Your task to perform on an android device: set default search engine in the chrome app Image 0: 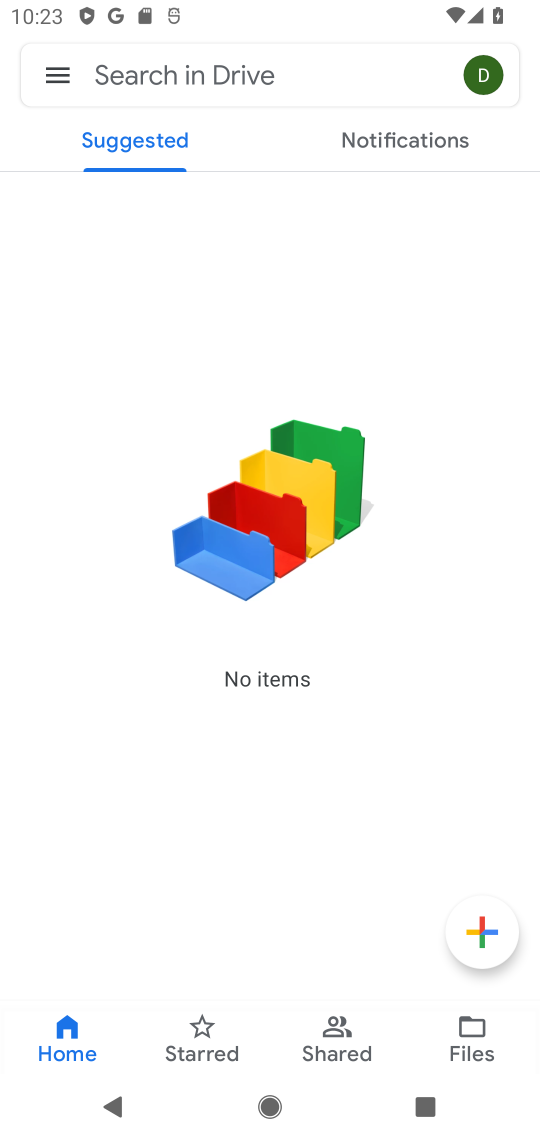
Step 0: press home button
Your task to perform on an android device: set default search engine in the chrome app Image 1: 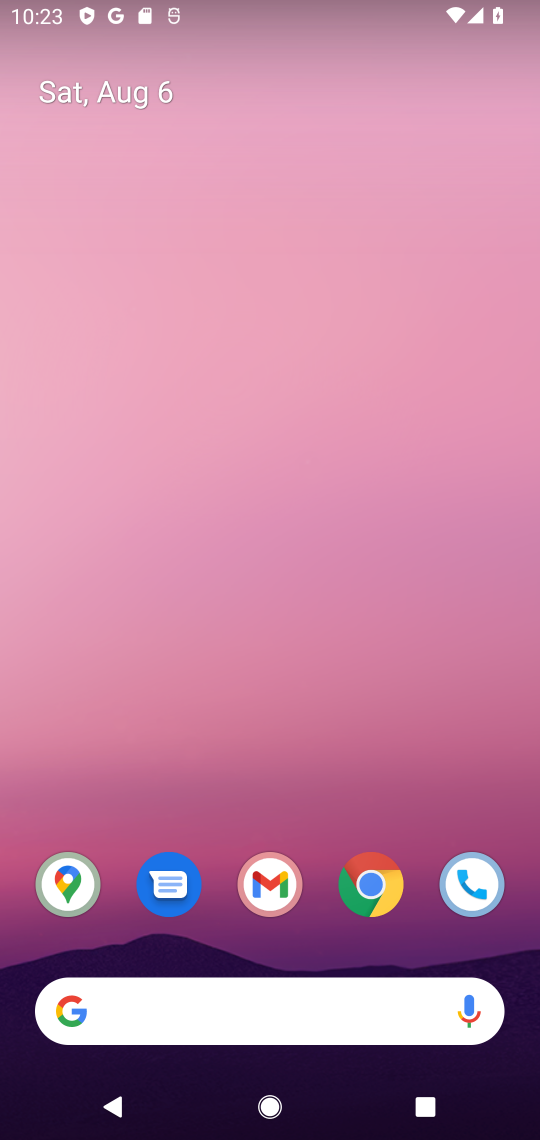
Step 1: click (369, 886)
Your task to perform on an android device: set default search engine in the chrome app Image 2: 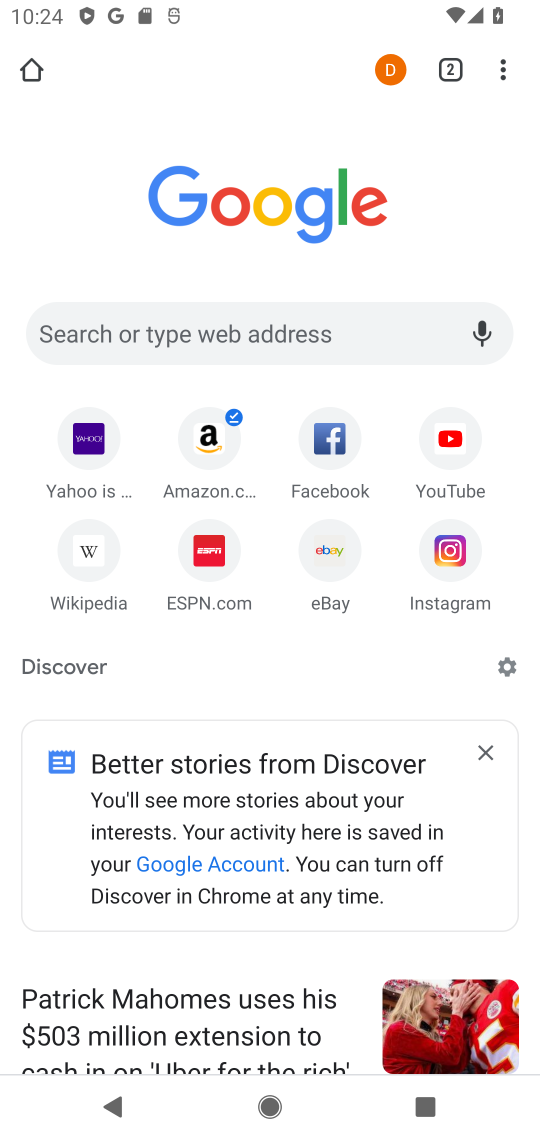
Step 2: click (494, 82)
Your task to perform on an android device: set default search engine in the chrome app Image 3: 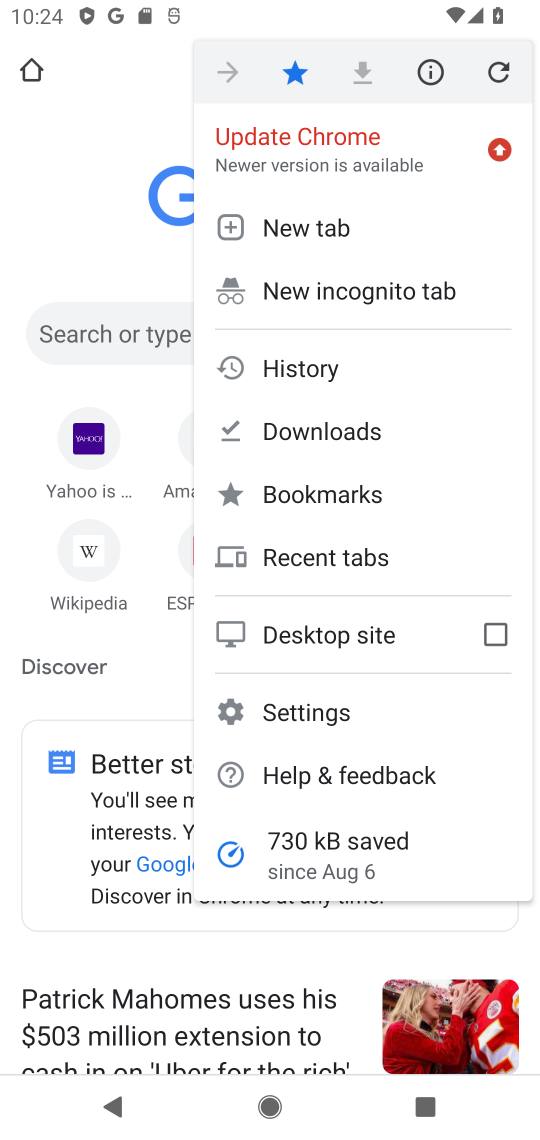
Step 3: click (312, 709)
Your task to perform on an android device: set default search engine in the chrome app Image 4: 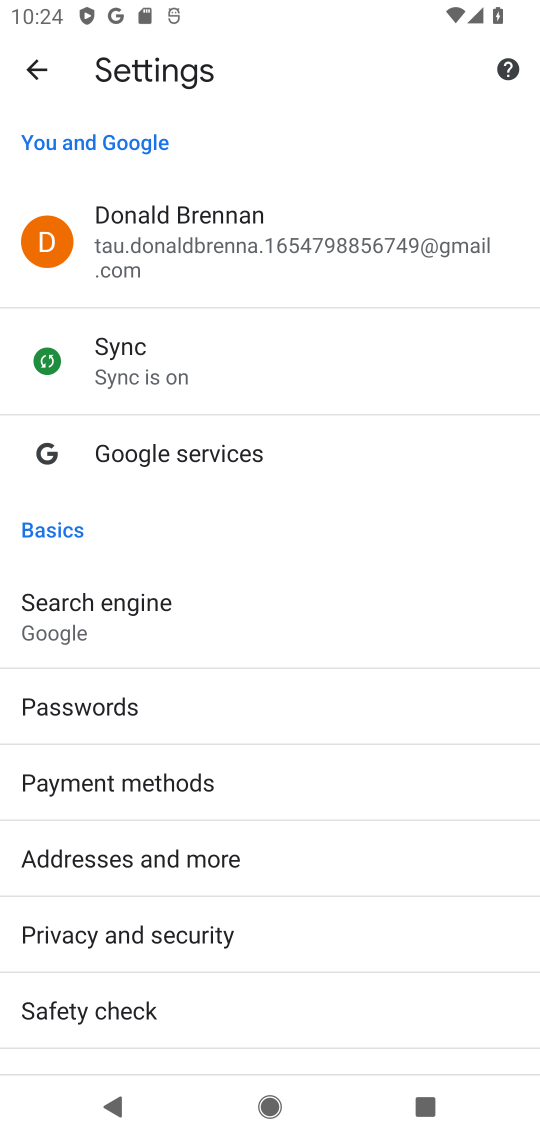
Step 4: click (84, 616)
Your task to perform on an android device: set default search engine in the chrome app Image 5: 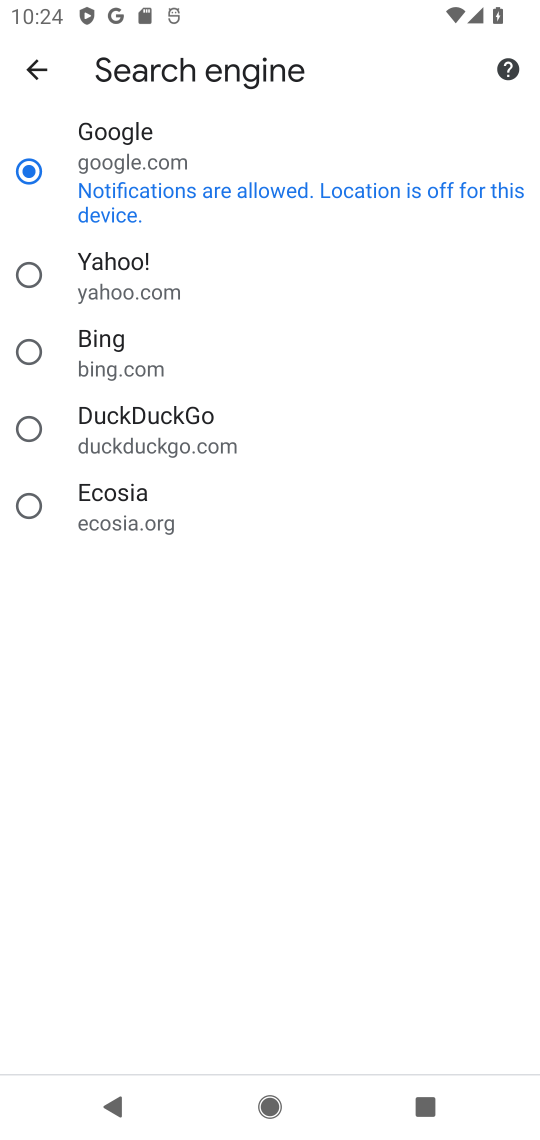
Step 5: click (28, 281)
Your task to perform on an android device: set default search engine in the chrome app Image 6: 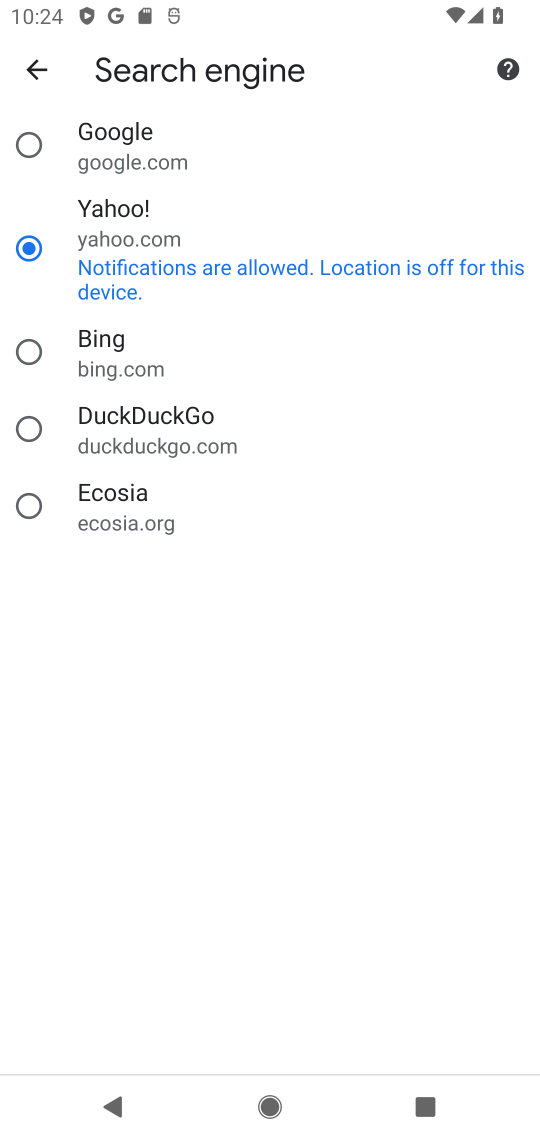
Step 6: task complete